Your task to perform on an android device: Open maps Image 0: 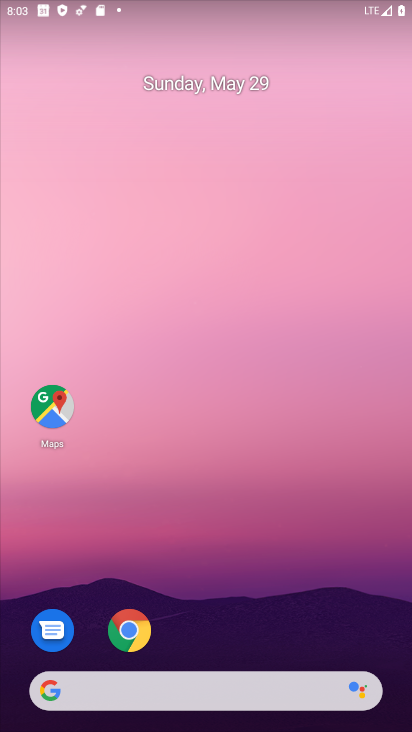
Step 0: click (54, 389)
Your task to perform on an android device: Open maps Image 1: 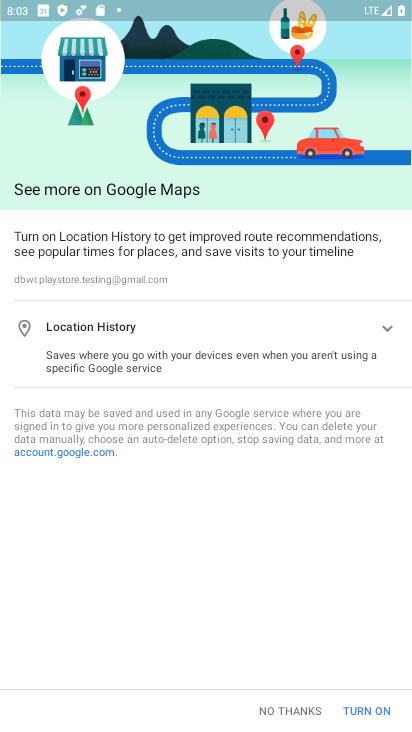
Step 1: click (372, 725)
Your task to perform on an android device: Open maps Image 2: 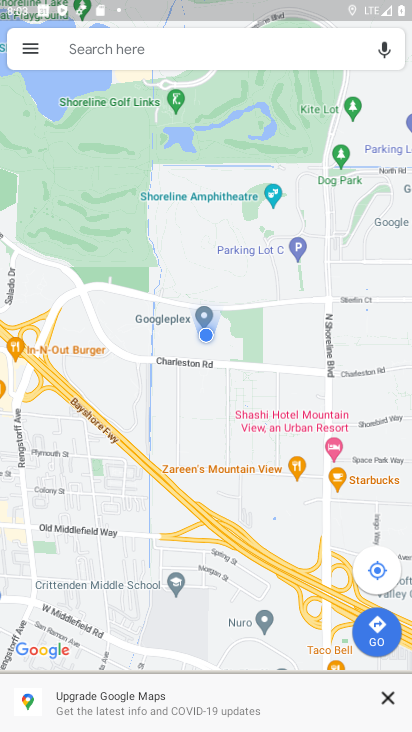
Step 2: click (372, 725)
Your task to perform on an android device: Open maps Image 3: 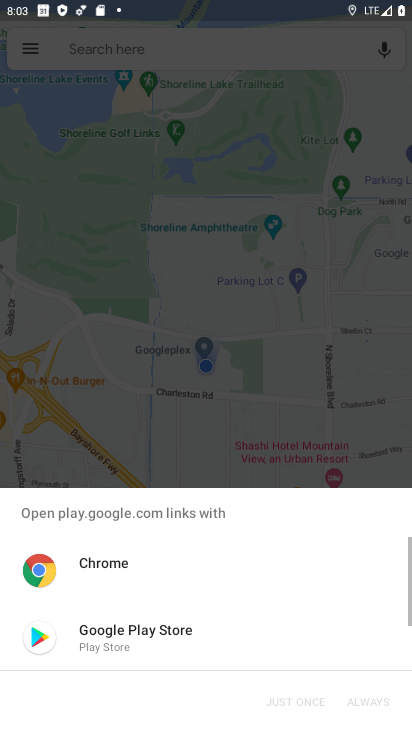
Step 3: task complete